Your task to perform on an android device: When is my next meeting? Image 0: 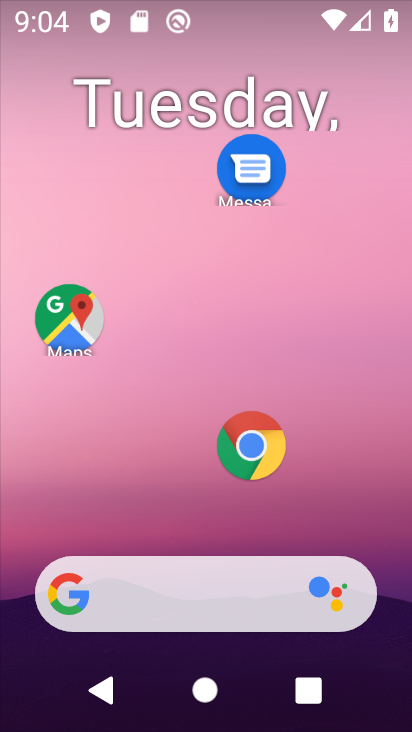
Step 0: drag from (164, 453) to (257, 45)
Your task to perform on an android device: When is my next meeting? Image 1: 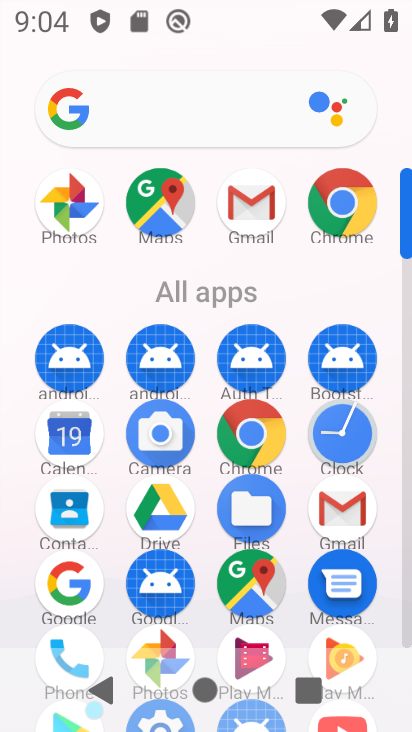
Step 1: click (76, 430)
Your task to perform on an android device: When is my next meeting? Image 2: 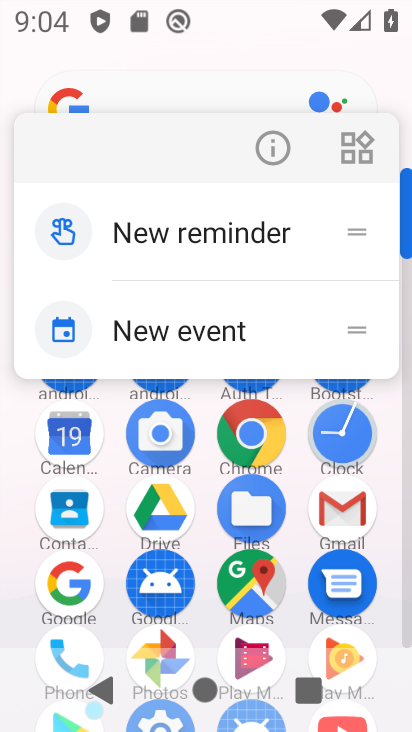
Step 2: click (32, 429)
Your task to perform on an android device: When is my next meeting? Image 3: 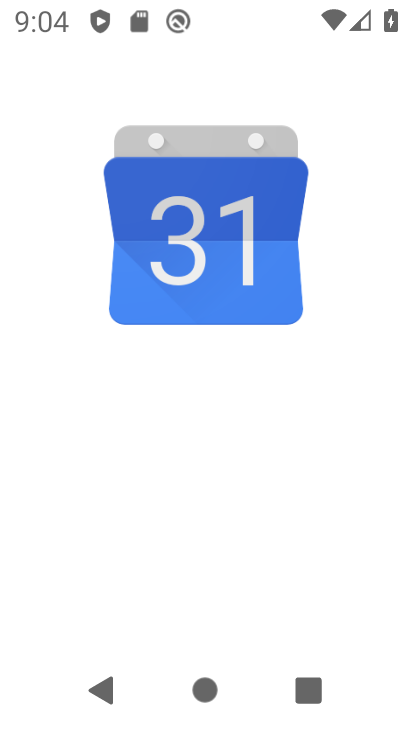
Step 3: click (74, 443)
Your task to perform on an android device: When is my next meeting? Image 4: 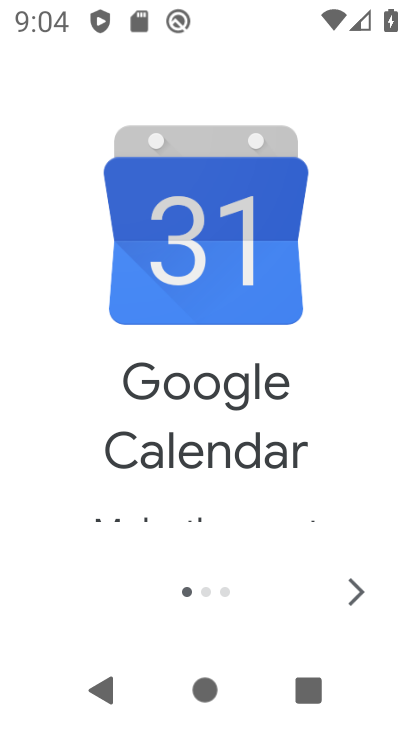
Step 4: click (362, 578)
Your task to perform on an android device: When is my next meeting? Image 5: 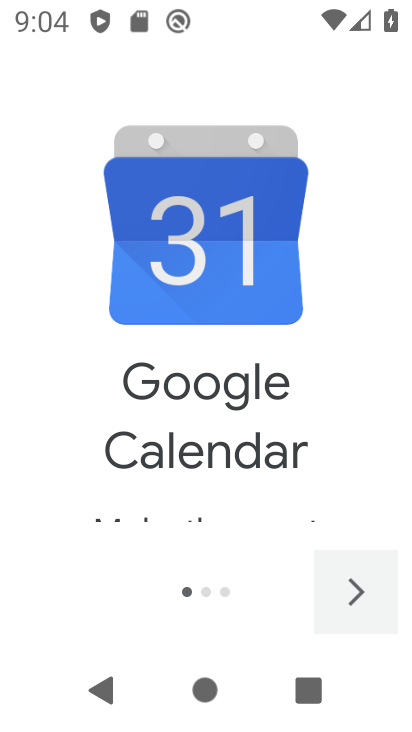
Step 5: click (361, 578)
Your task to perform on an android device: When is my next meeting? Image 6: 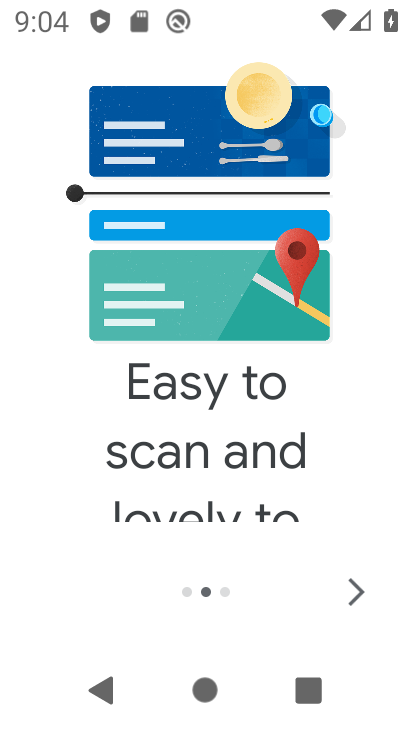
Step 6: click (361, 578)
Your task to perform on an android device: When is my next meeting? Image 7: 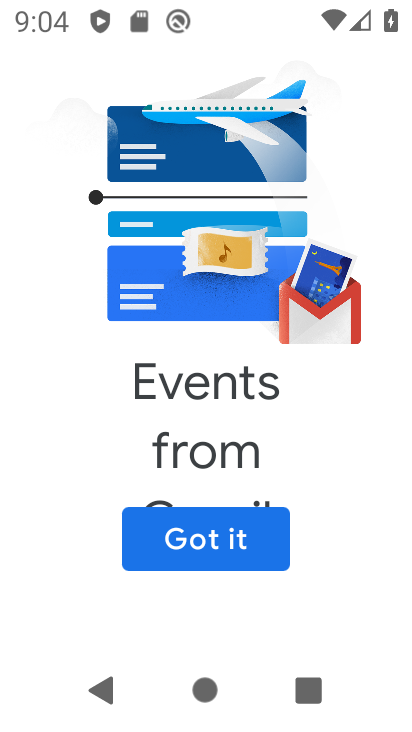
Step 7: click (217, 544)
Your task to perform on an android device: When is my next meeting? Image 8: 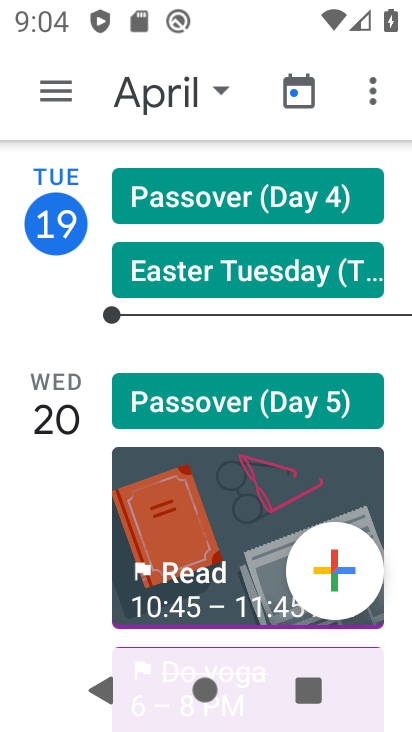
Step 8: task complete